Your task to perform on an android device: check battery use Image 0: 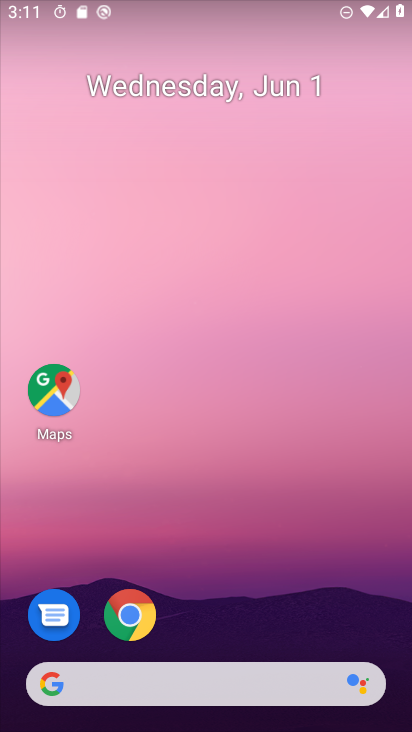
Step 0: drag from (247, 636) to (306, 2)
Your task to perform on an android device: check battery use Image 1: 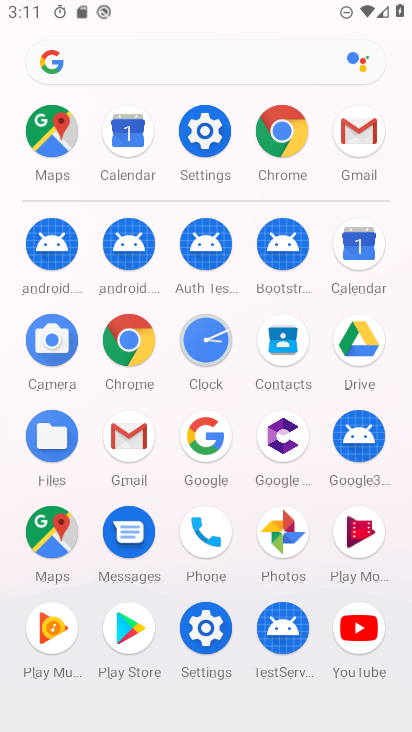
Step 1: click (186, 138)
Your task to perform on an android device: check battery use Image 2: 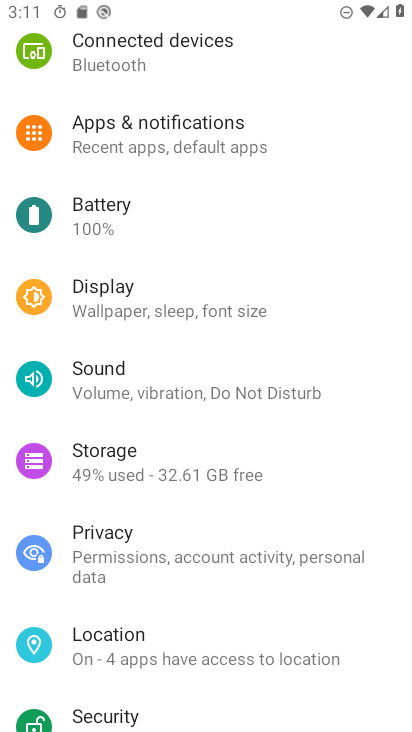
Step 2: drag from (178, 260) to (171, 507)
Your task to perform on an android device: check battery use Image 3: 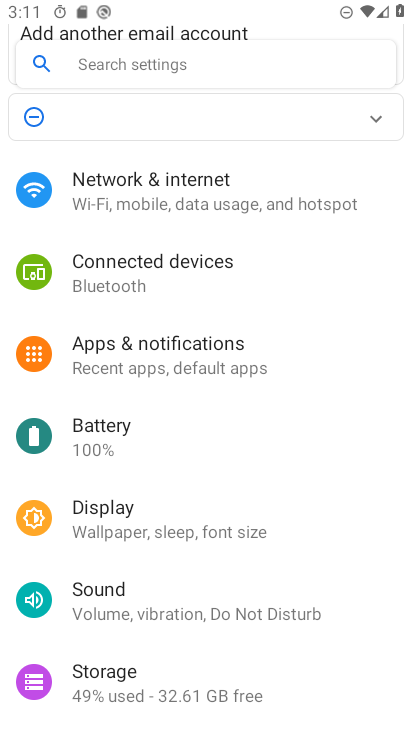
Step 3: click (138, 435)
Your task to perform on an android device: check battery use Image 4: 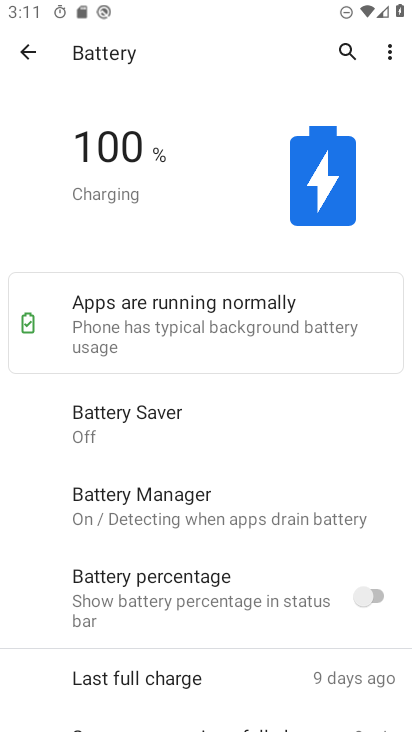
Step 4: task complete